Your task to perform on an android device: turn off location history Image 0: 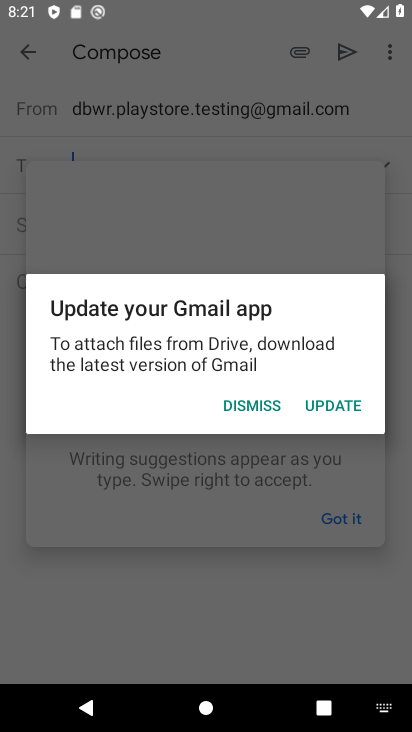
Step 0: press home button
Your task to perform on an android device: turn off location history Image 1: 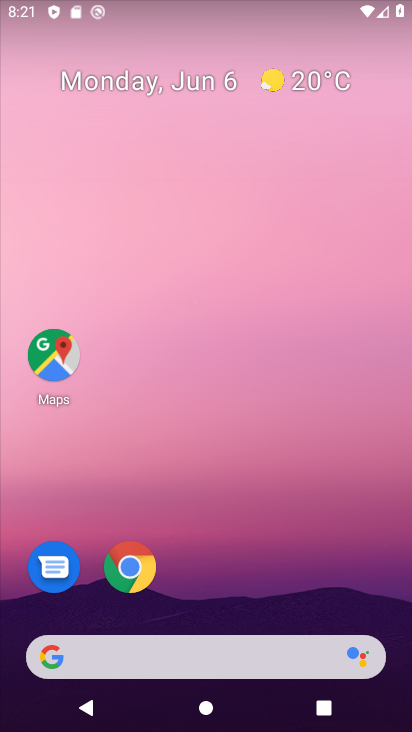
Step 1: drag from (246, 614) to (228, 230)
Your task to perform on an android device: turn off location history Image 2: 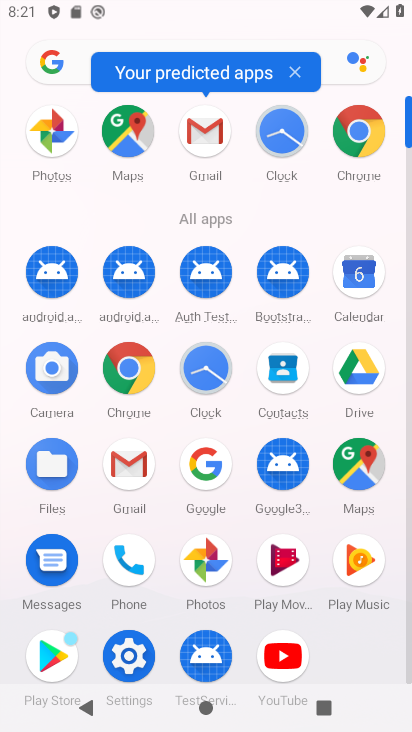
Step 2: click (128, 633)
Your task to perform on an android device: turn off location history Image 3: 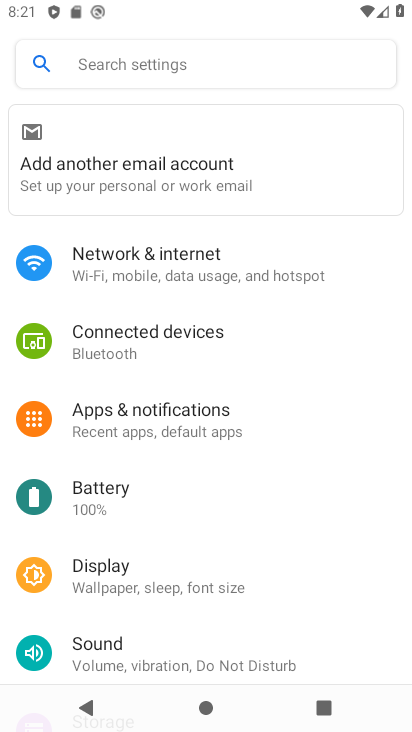
Step 3: drag from (128, 640) to (154, 84)
Your task to perform on an android device: turn off location history Image 4: 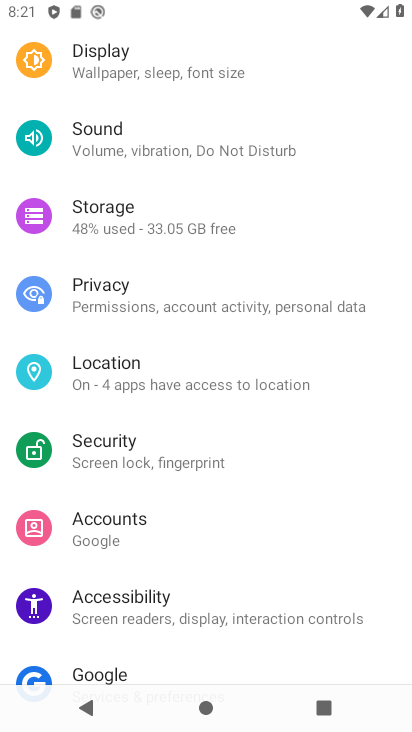
Step 4: click (83, 391)
Your task to perform on an android device: turn off location history Image 5: 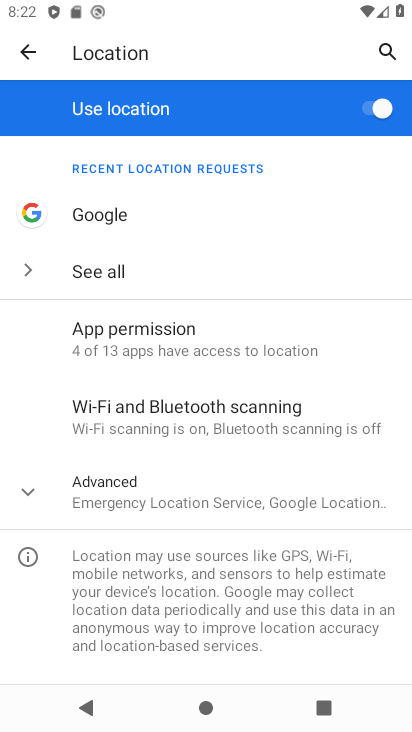
Step 5: click (157, 495)
Your task to perform on an android device: turn off location history Image 6: 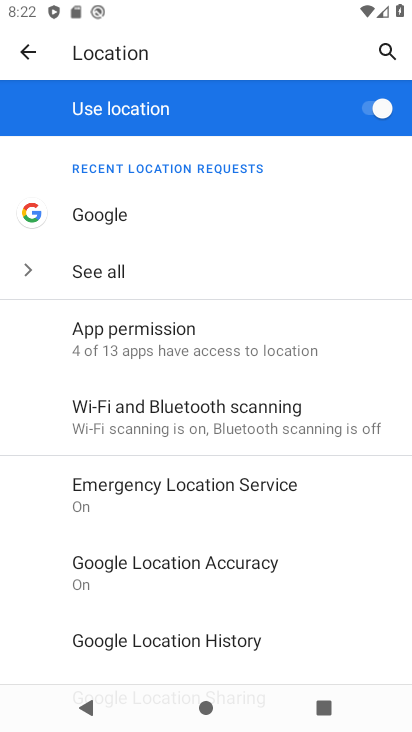
Step 6: click (176, 582)
Your task to perform on an android device: turn off location history Image 7: 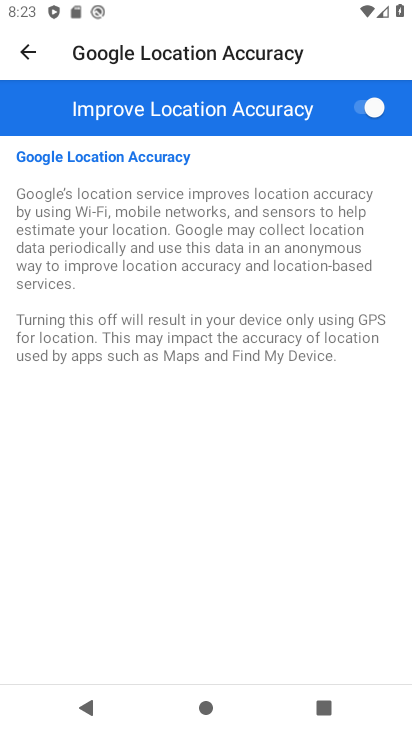
Step 7: click (364, 106)
Your task to perform on an android device: turn off location history Image 8: 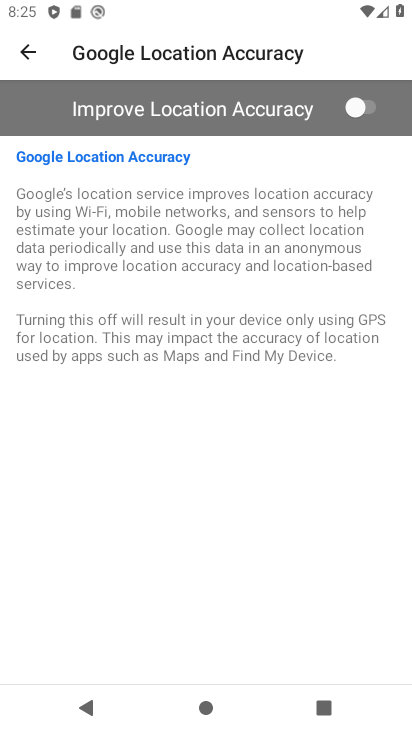
Step 8: task complete